Your task to perform on an android device: Go to network settings Image 0: 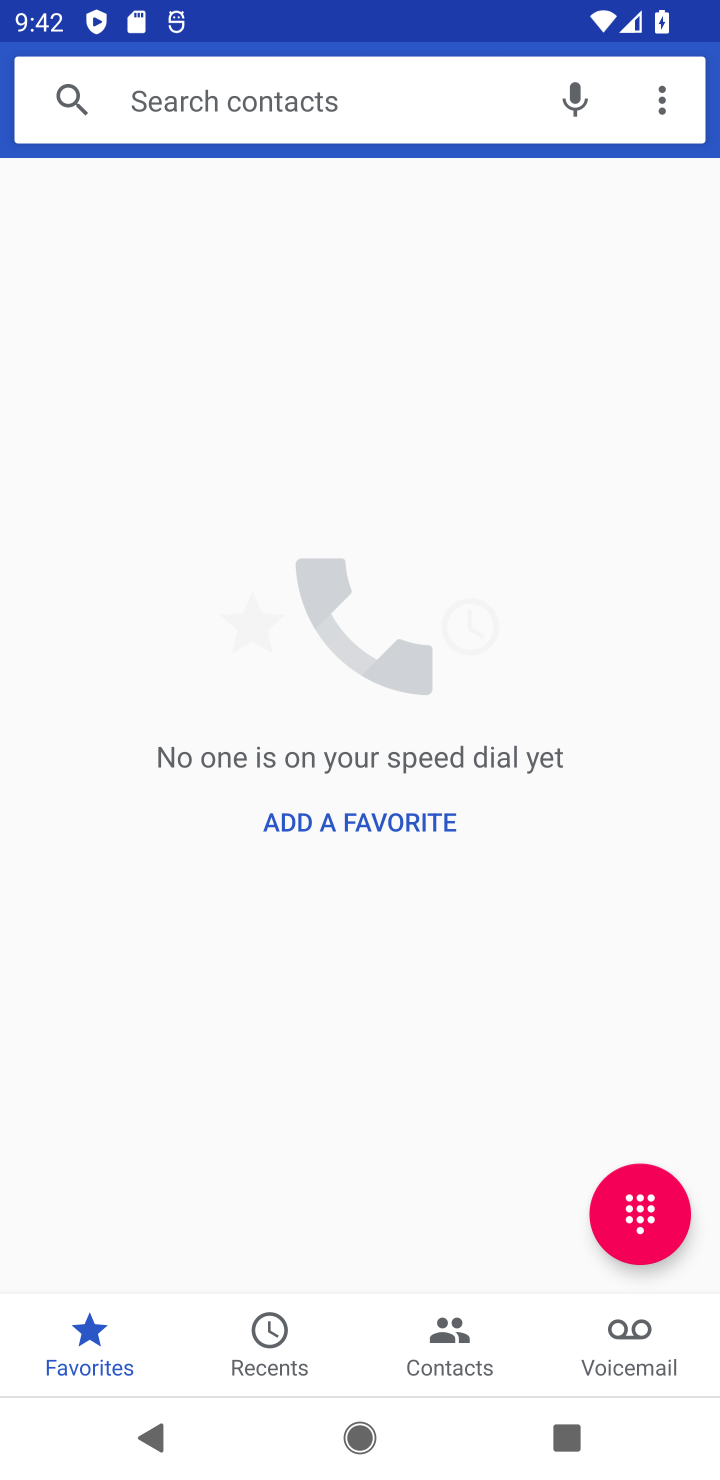
Step 0: task complete